Your task to perform on an android device: change notifications settings Image 0: 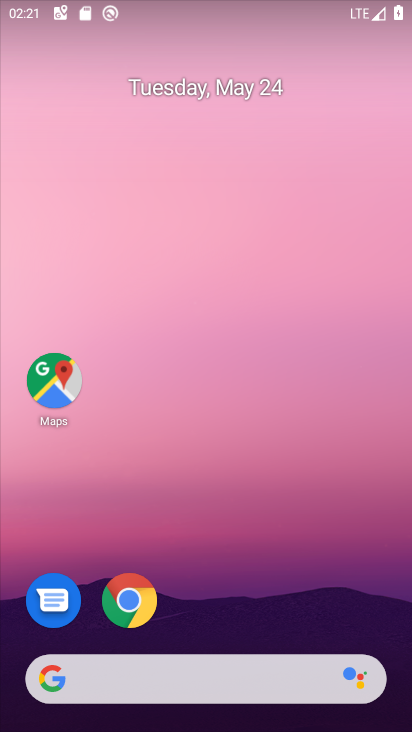
Step 0: drag from (292, 585) to (192, 273)
Your task to perform on an android device: change notifications settings Image 1: 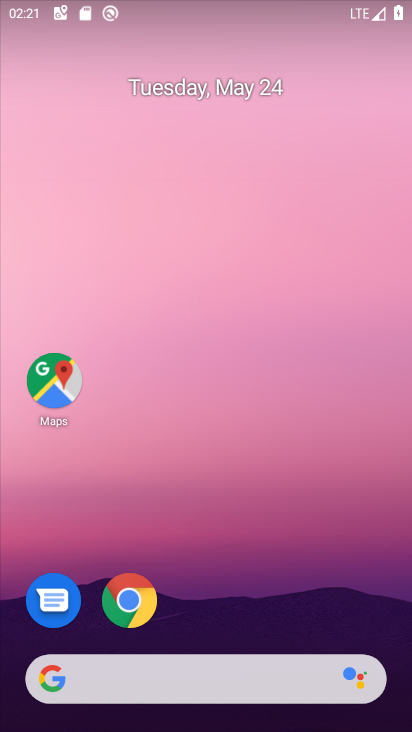
Step 1: drag from (247, 565) to (172, 144)
Your task to perform on an android device: change notifications settings Image 2: 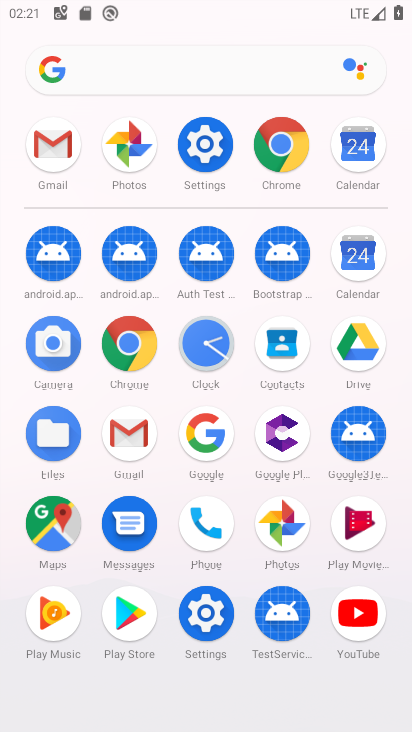
Step 2: click (191, 139)
Your task to perform on an android device: change notifications settings Image 3: 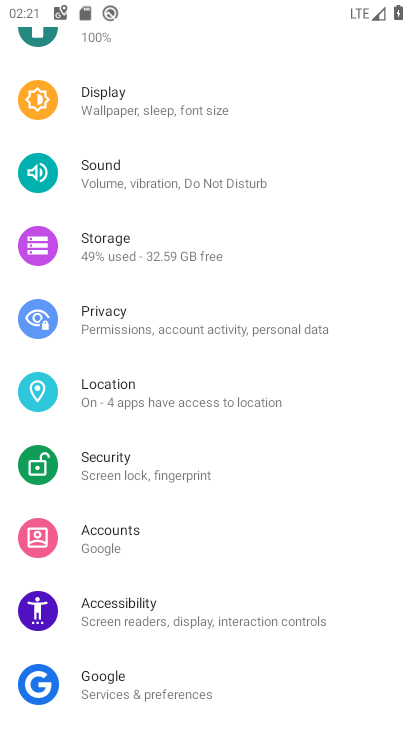
Step 3: drag from (248, 197) to (295, 605)
Your task to perform on an android device: change notifications settings Image 4: 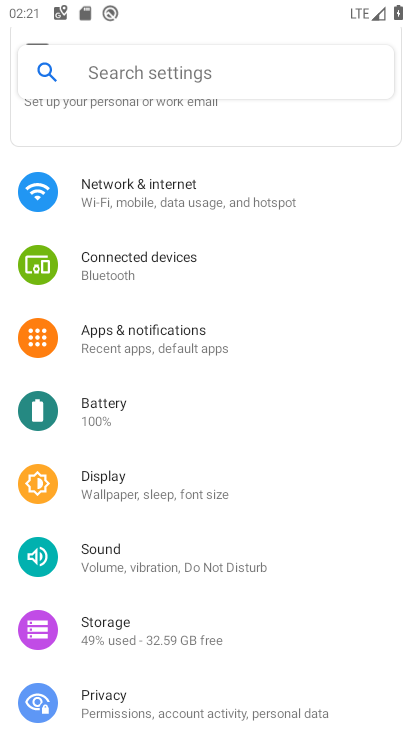
Step 4: click (192, 346)
Your task to perform on an android device: change notifications settings Image 5: 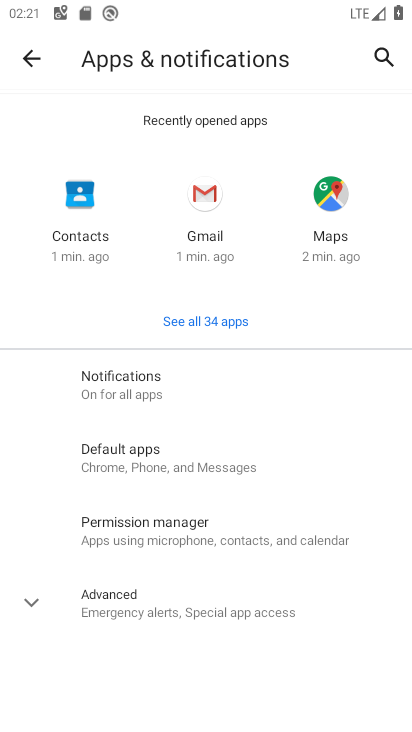
Step 5: click (175, 388)
Your task to perform on an android device: change notifications settings Image 6: 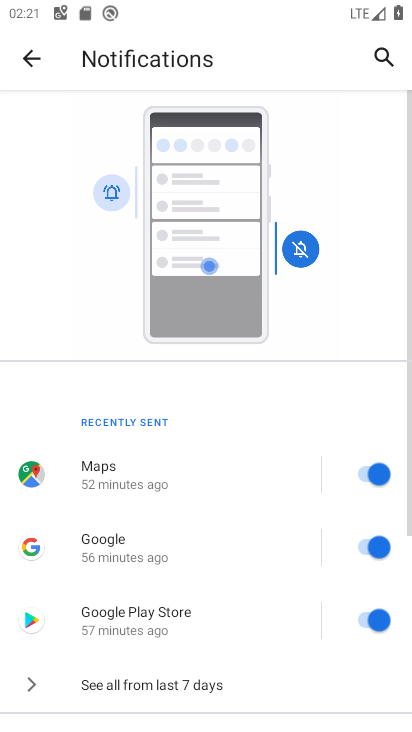
Step 6: drag from (194, 533) to (182, 174)
Your task to perform on an android device: change notifications settings Image 7: 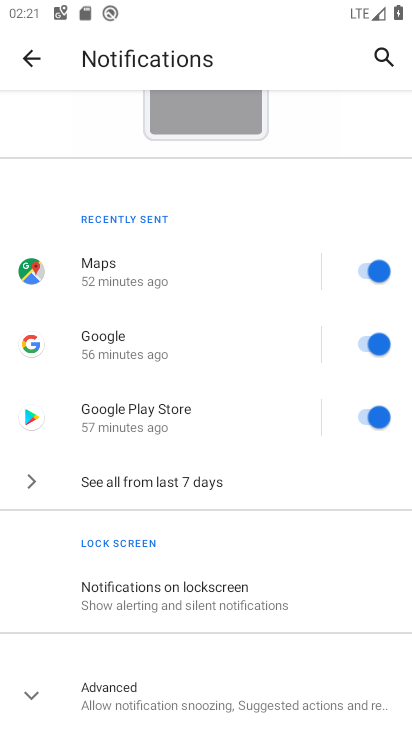
Step 7: click (164, 687)
Your task to perform on an android device: change notifications settings Image 8: 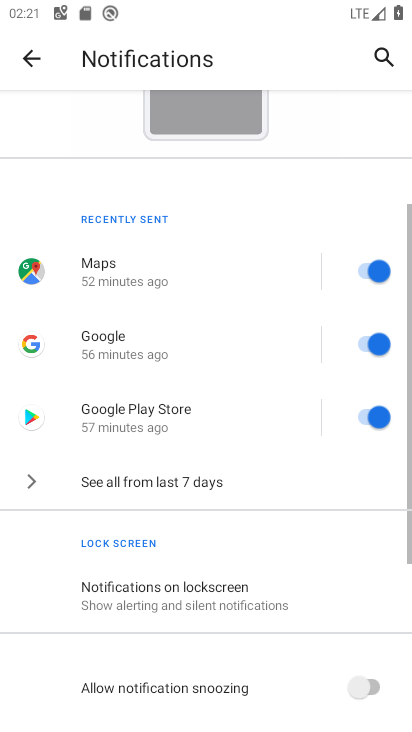
Step 8: drag from (166, 686) to (177, 360)
Your task to perform on an android device: change notifications settings Image 9: 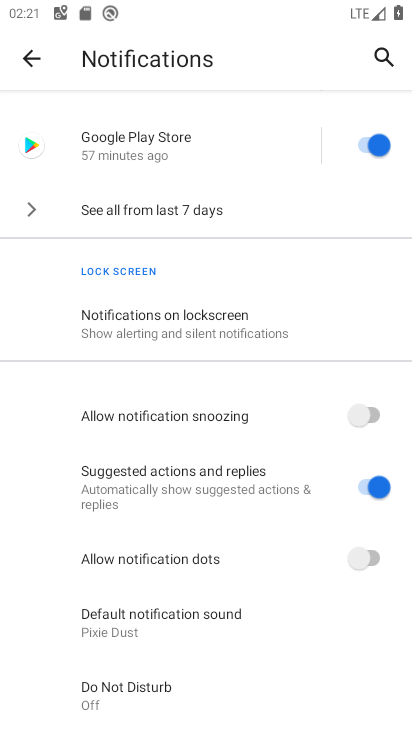
Step 9: drag from (234, 575) to (239, 341)
Your task to perform on an android device: change notifications settings Image 10: 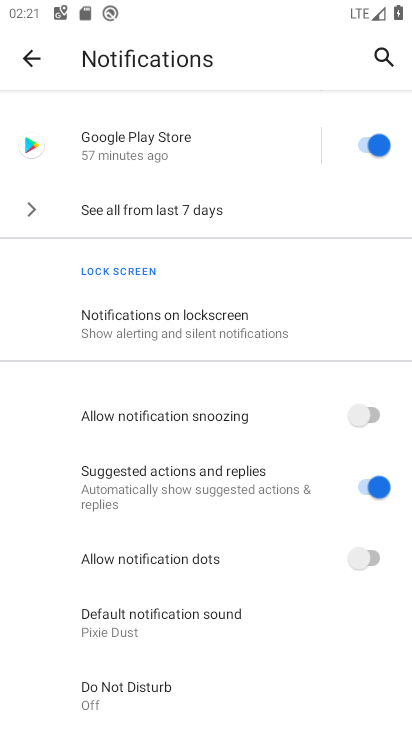
Step 10: click (222, 295)
Your task to perform on an android device: change notifications settings Image 11: 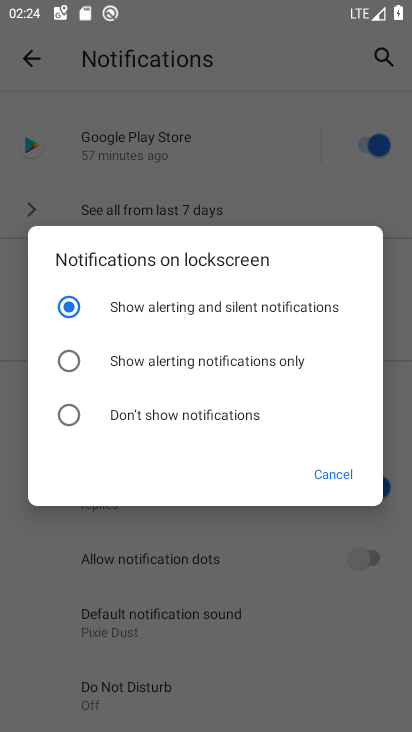
Step 11: click (205, 364)
Your task to perform on an android device: change notifications settings Image 12: 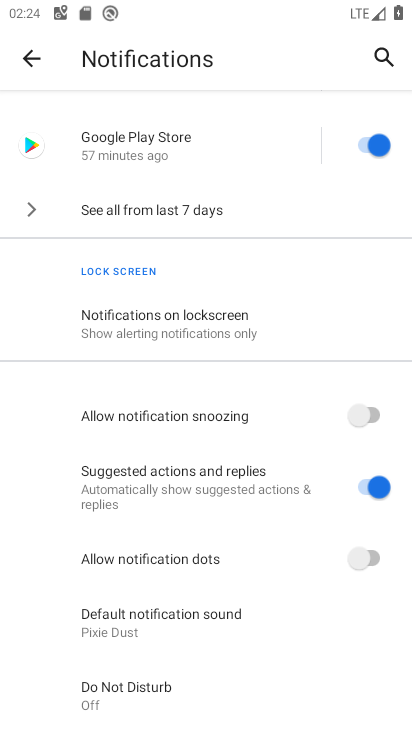
Step 12: task complete